Your task to perform on an android device: toggle notification dots Image 0: 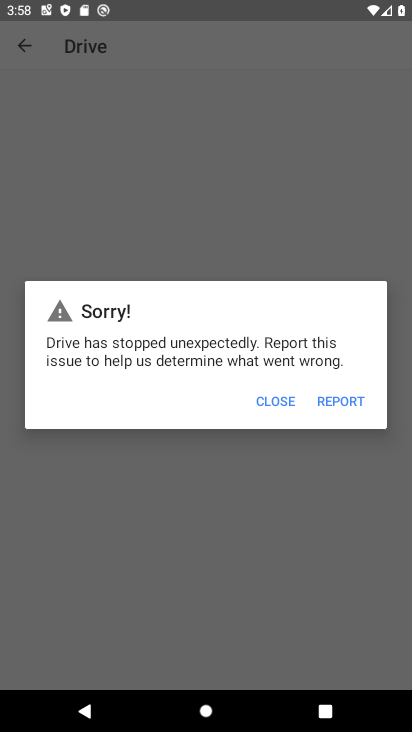
Step 0: press home button
Your task to perform on an android device: toggle notification dots Image 1: 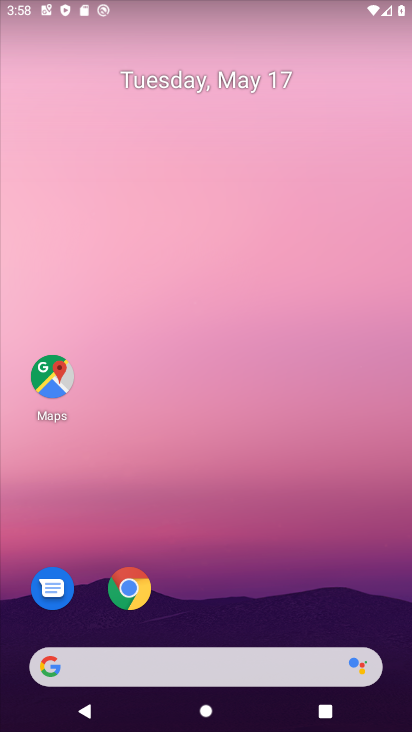
Step 1: drag from (255, 596) to (212, 118)
Your task to perform on an android device: toggle notification dots Image 2: 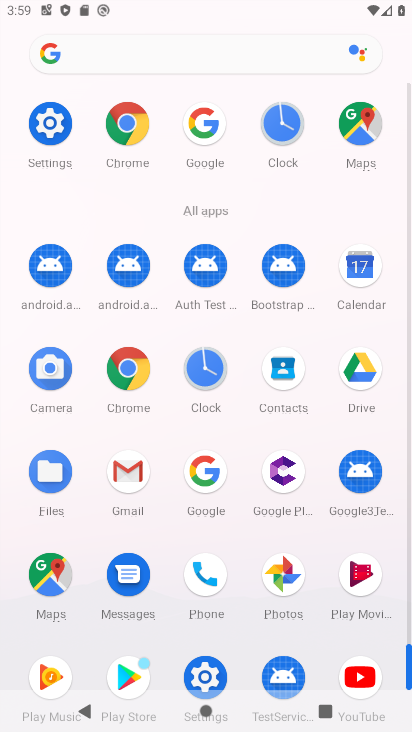
Step 2: click (48, 123)
Your task to perform on an android device: toggle notification dots Image 3: 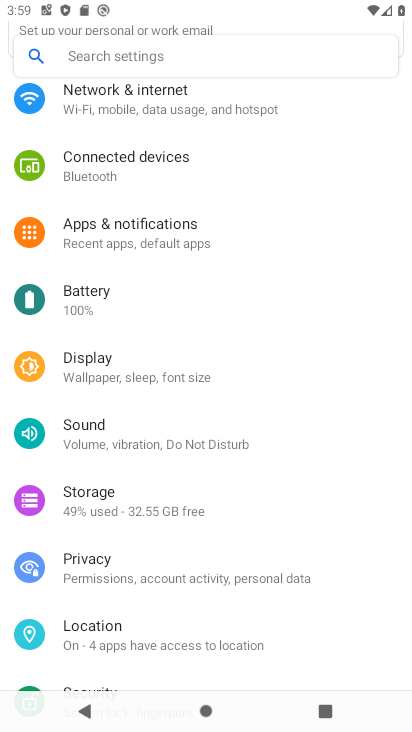
Step 3: click (164, 226)
Your task to perform on an android device: toggle notification dots Image 4: 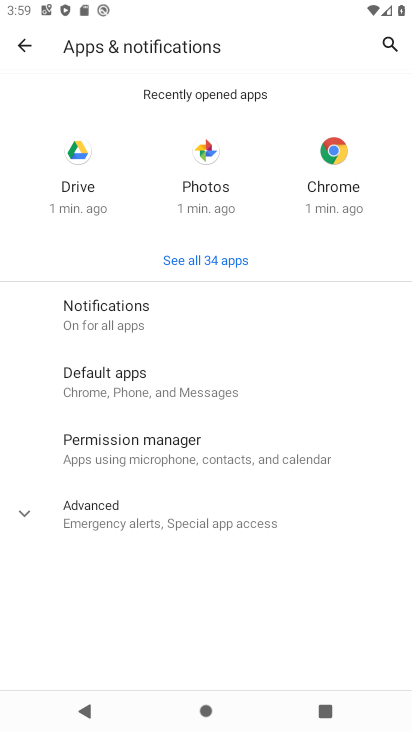
Step 4: click (101, 304)
Your task to perform on an android device: toggle notification dots Image 5: 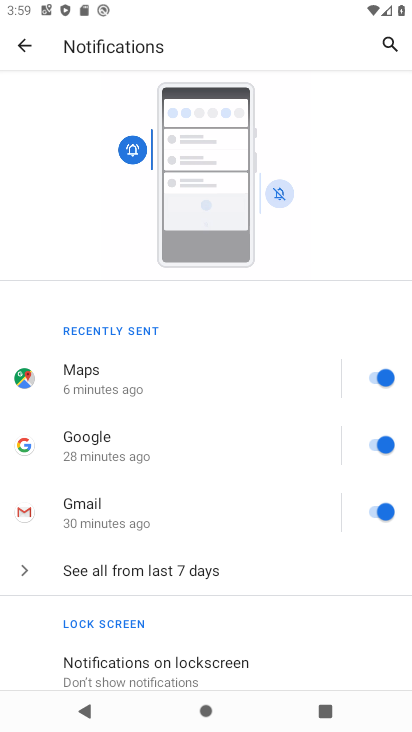
Step 5: drag from (182, 626) to (203, 457)
Your task to perform on an android device: toggle notification dots Image 6: 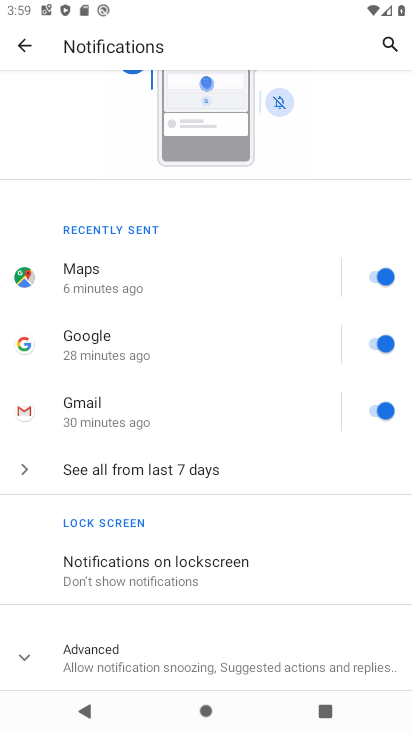
Step 6: click (168, 661)
Your task to perform on an android device: toggle notification dots Image 7: 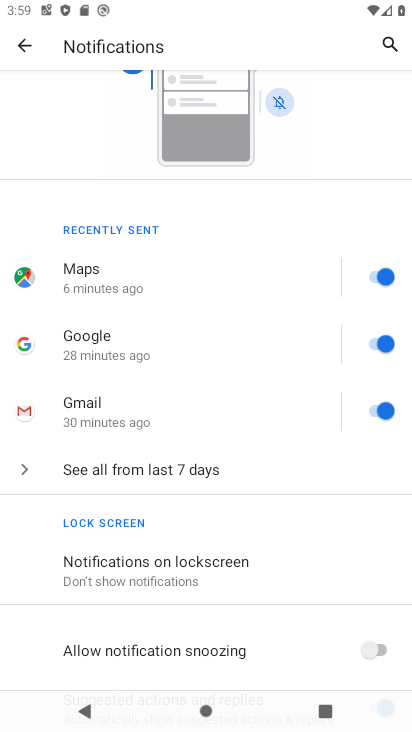
Step 7: drag from (170, 628) to (254, 522)
Your task to perform on an android device: toggle notification dots Image 8: 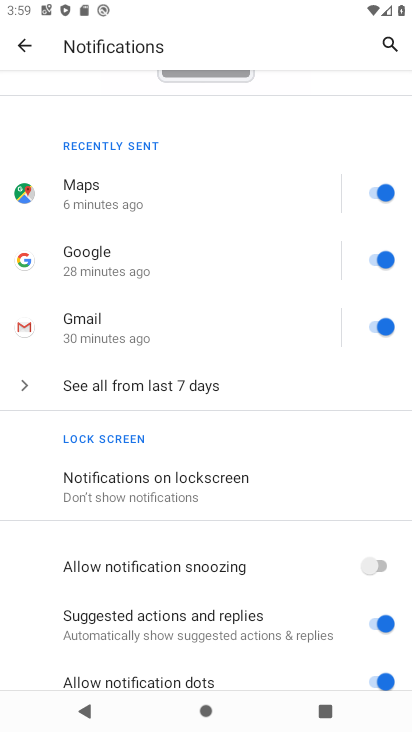
Step 8: drag from (192, 585) to (225, 530)
Your task to perform on an android device: toggle notification dots Image 9: 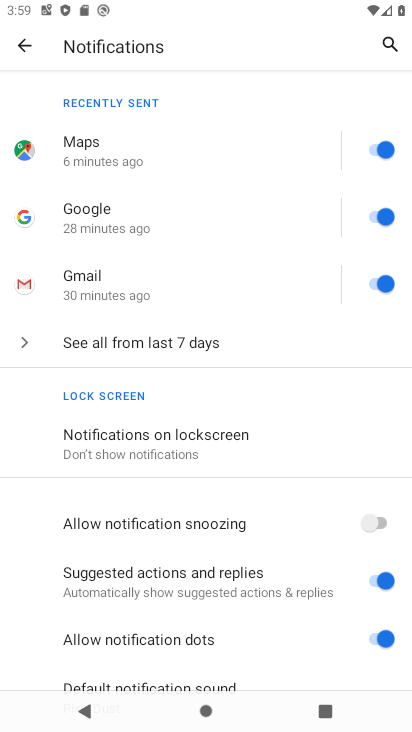
Step 9: click (374, 526)
Your task to perform on an android device: toggle notification dots Image 10: 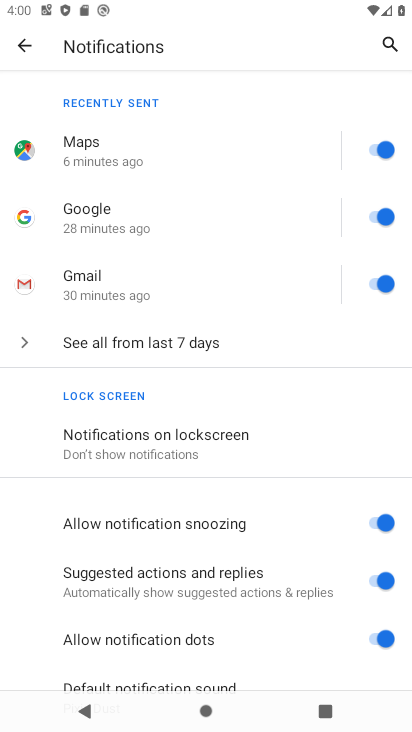
Step 10: task complete